Your task to perform on an android device: Open calendar and show me the fourth week of next month Image 0: 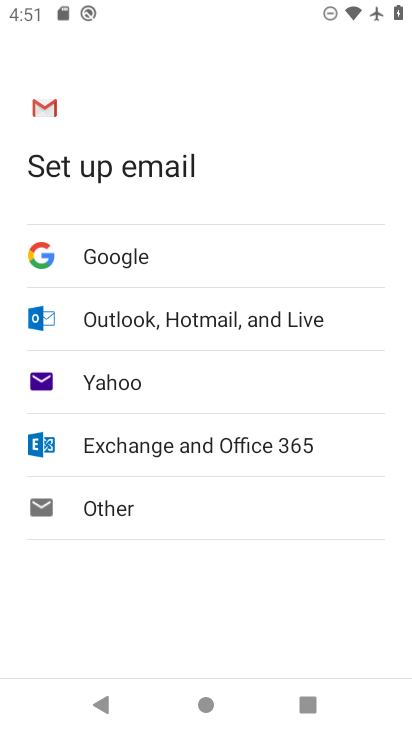
Step 0: press home button
Your task to perform on an android device: Open calendar and show me the fourth week of next month Image 1: 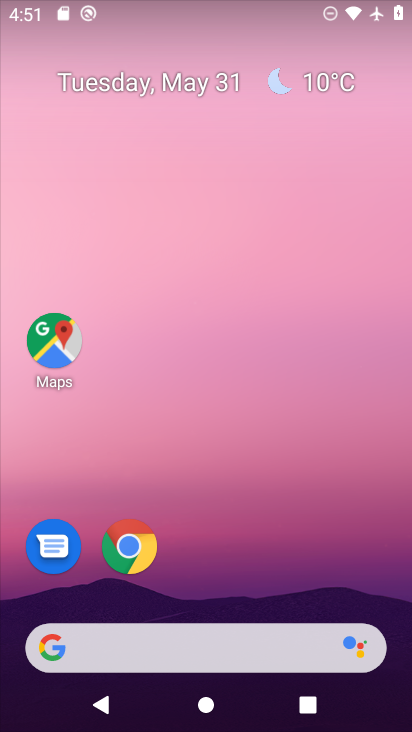
Step 1: drag from (297, 352) to (288, 107)
Your task to perform on an android device: Open calendar and show me the fourth week of next month Image 2: 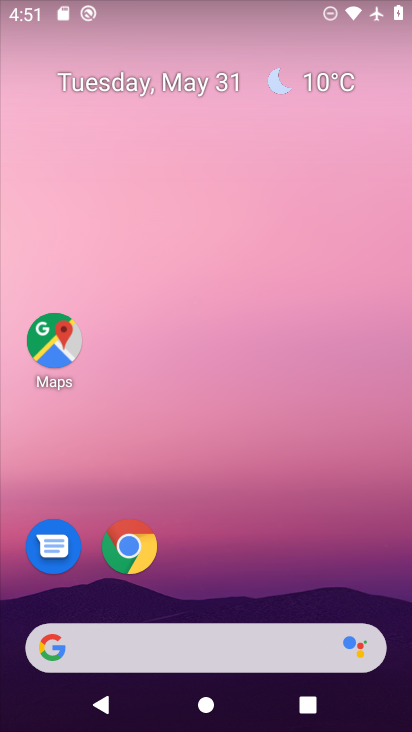
Step 2: drag from (263, 552) to (189, 73)
Your task to perform on an android device: Open calendar and show me the fourth week of next month Image 3: 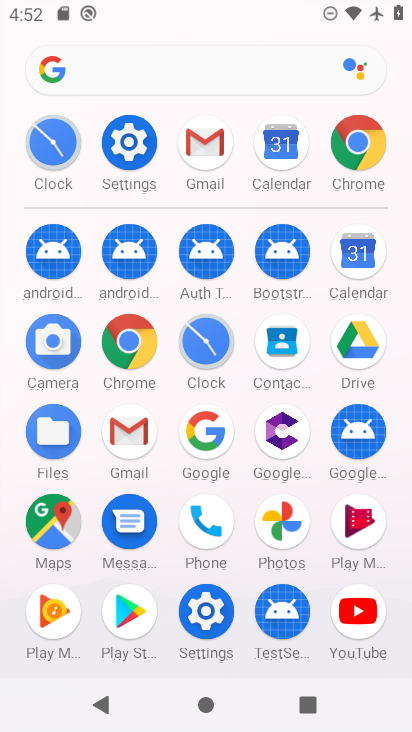
Step 3: click (348, 256)
Your task to perform on an android device: Open calendar and show me the fourth week of next month Image 4: 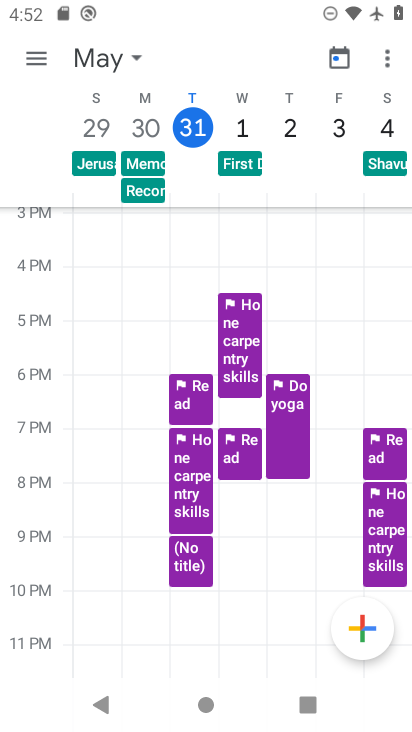
Step 4: click (135, 55)
Your task to perform on an android device: Open calendar and show me the fourth week of next month Image 5: 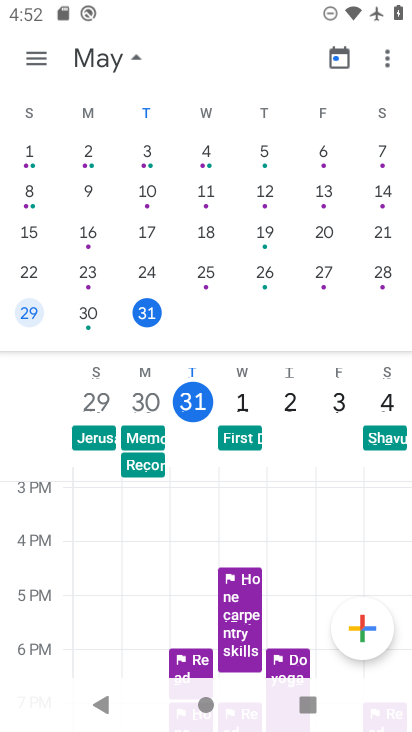
Step 5: drag from (353, 228) to (1, 263)
Your task to perform on an android device: Open calendar and show me the fourth week of next month Image 6: 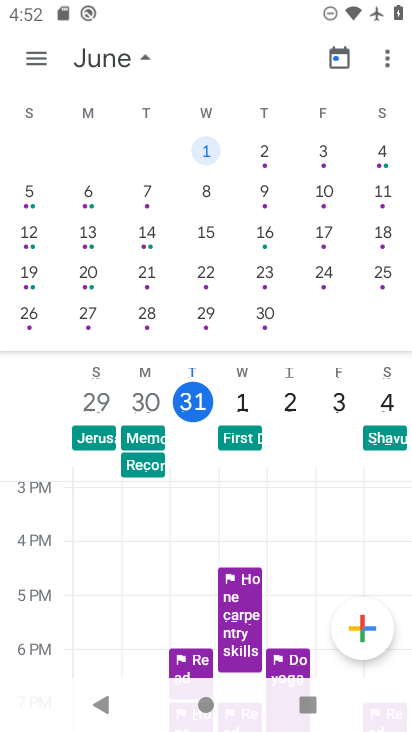
Step 6: click (35, 266)
Your task to perform on an android device: Open calendar and show me the fourth week of next month Image 7: 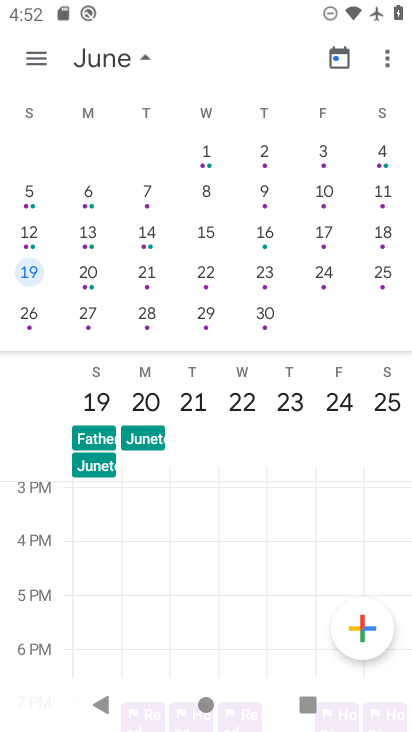
Step 7: task complete